Your task to perform on an android device: turn pop-ups on in chrome Image 0: 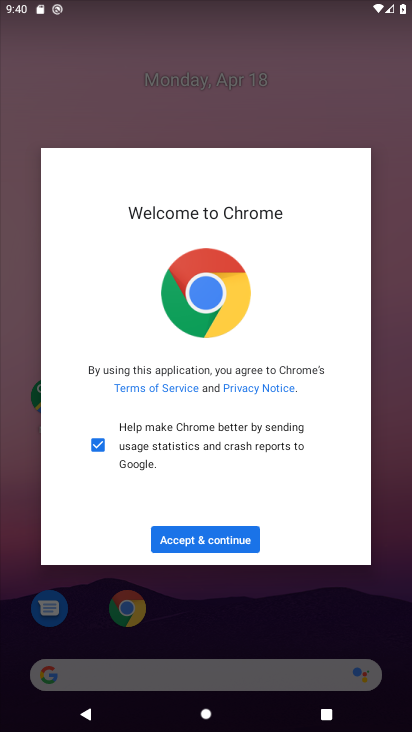
Step 0: click (212, 545)
Your task to perform on an android device: turn pop-ups on in chrome Image 1: 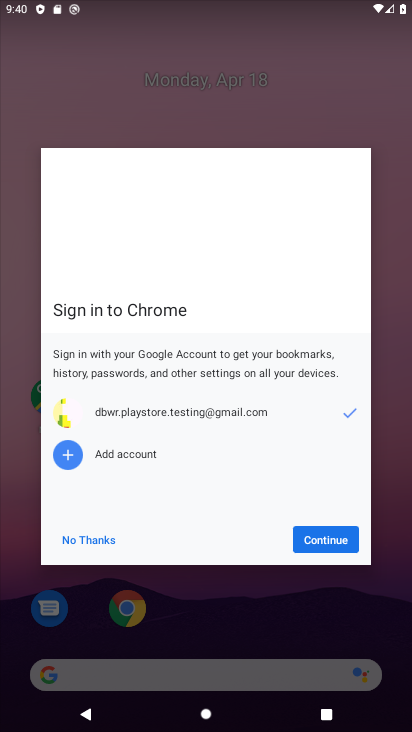
Step 1: click (310, 542)
Your task to perform on an android device: turn pop-ups on in chrome Image 2: 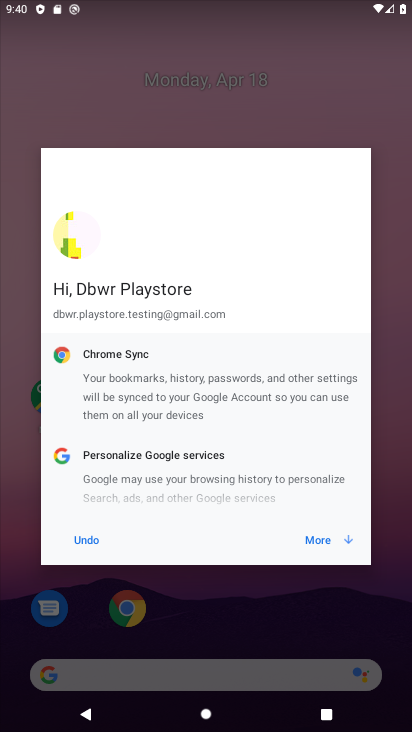
Step 2: click (319, 540)
Your task to perform on an android device: turn pop-ups on in chrome Image 3: 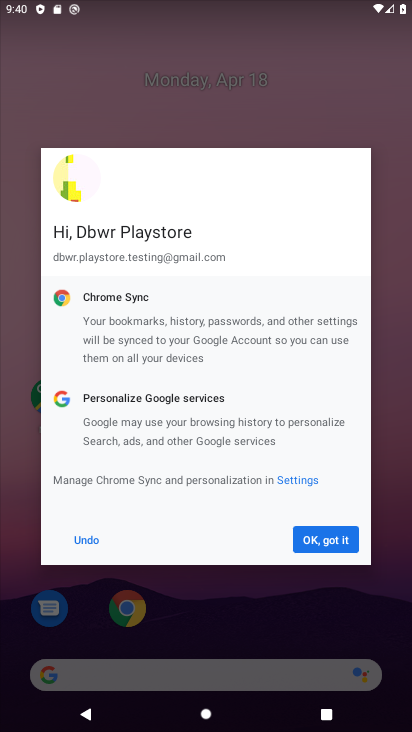
Step 3: click (321, 539)
Your task to perform on an android device: turn pop-ups on in chrome Image 4: 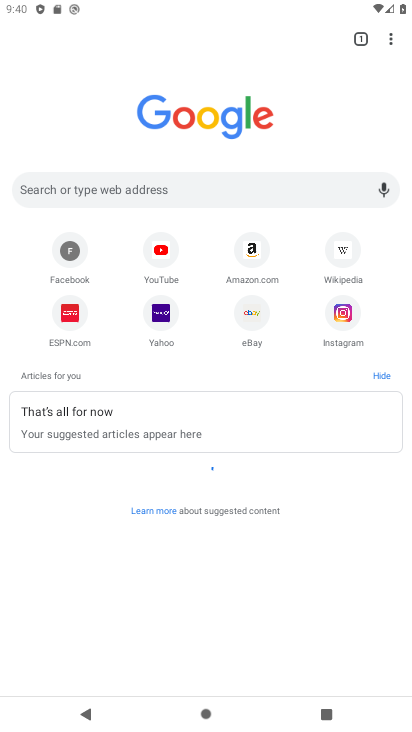
Step 4: drag from (388, 36) to (281, 329)
Your task to perform on an android device: turn pop-ups on in chrome Image 5: 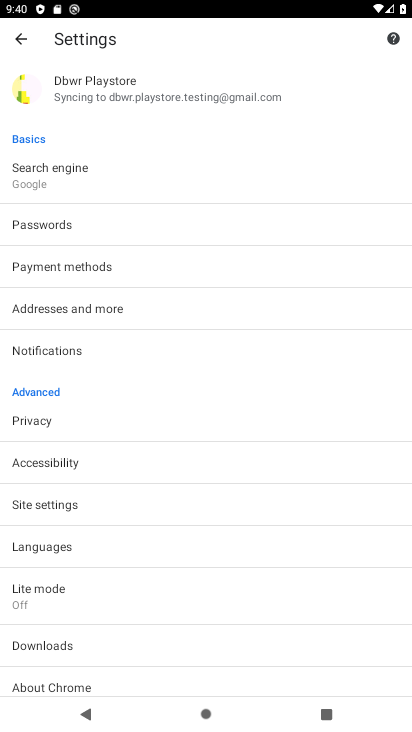
Step 5: click (68, 508)
Your task to perform on an android device: turn pop-ups on in chrome Image 6: 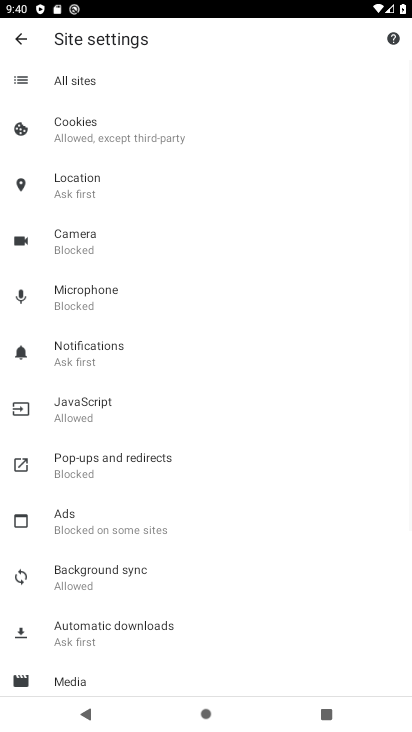
Step 6: click (108, 475)
Your task to perform on an android device: turn pop-ups on in chrome Image 7: 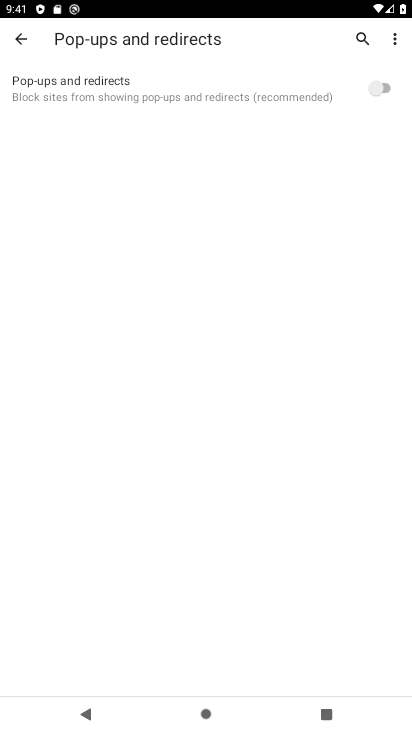
Step 7: click (376, 92)
Your task to perform on an android device: turn pop-ups on in chrome Image 8: 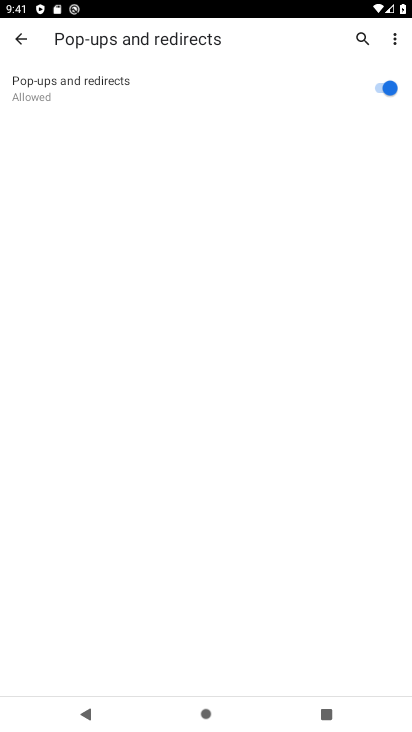
Step 8: task complete